Your task to perform on an android device: turn off wifi Image 0: 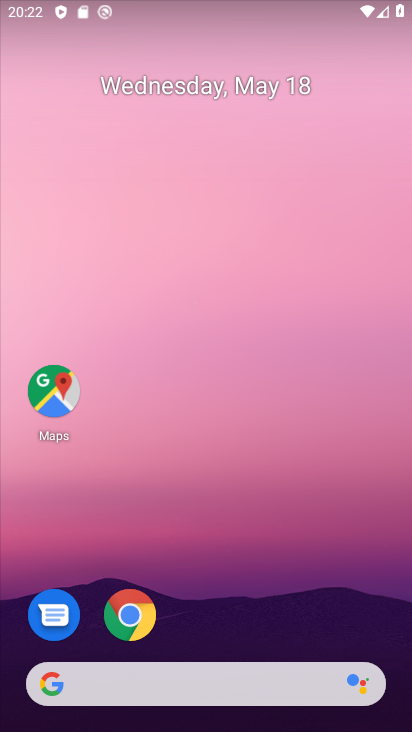
Step 0: drag from (226, 653) to (244, 87)
Your task to perform on an android device: turn off wifi Image 1: 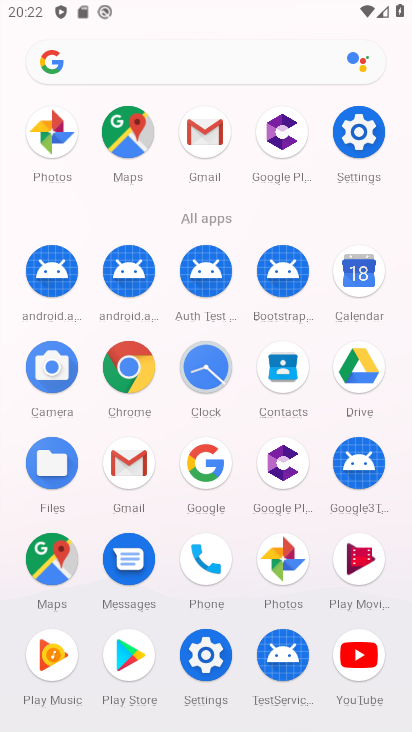
Step 1: click (351, 140)
Your task to perform on an android device: turn off wifi Image 2: 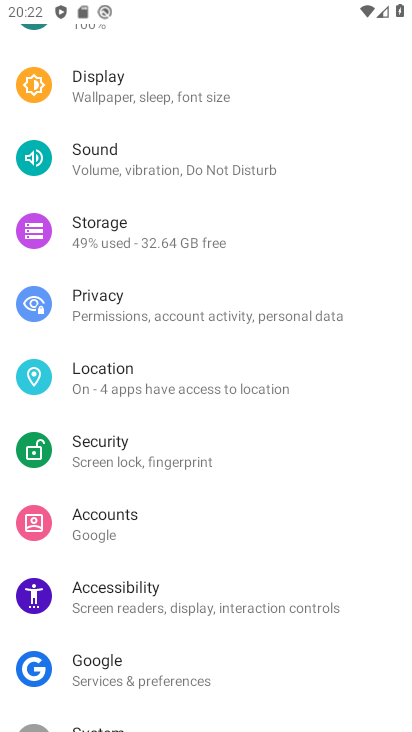
Step 2: drag from (81, 72) to (134, 529)
Your task to perform on an android device: turn off wifi Image 3: 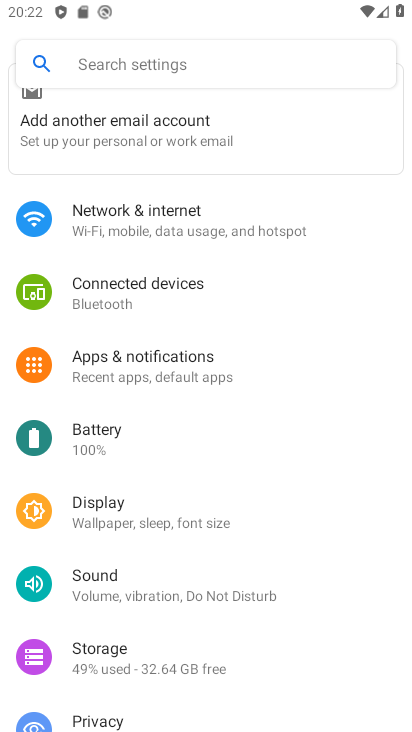
Step 3: click (165, 236)
Your task to perform on an android device: turn off wifi Image 4: 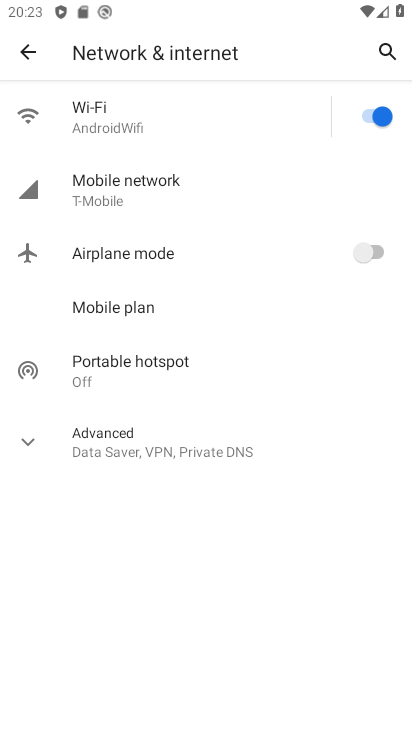
Step 4: click (378, 111)
Your task to perform on an android device: turn off wifi Image 5: 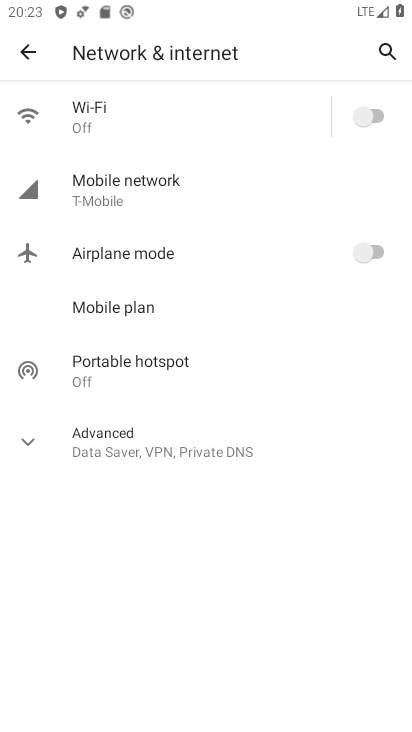
Step 5: task complete